Your task to perform on an android device: change alarm snooze length Image 0: 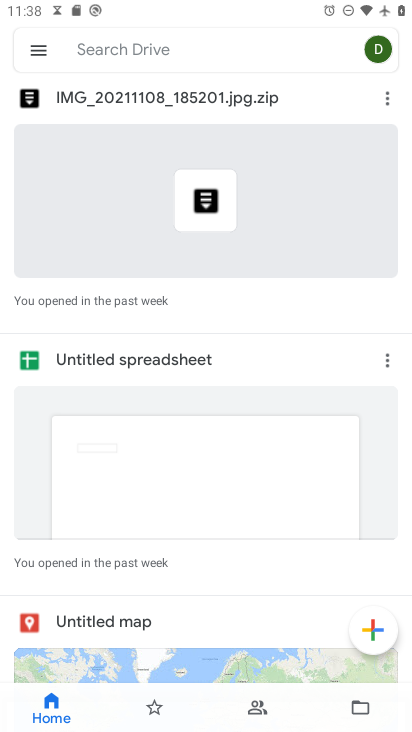
Step 0: press home button
Your task to perform on an android device: change alarm snooze length Image 1: 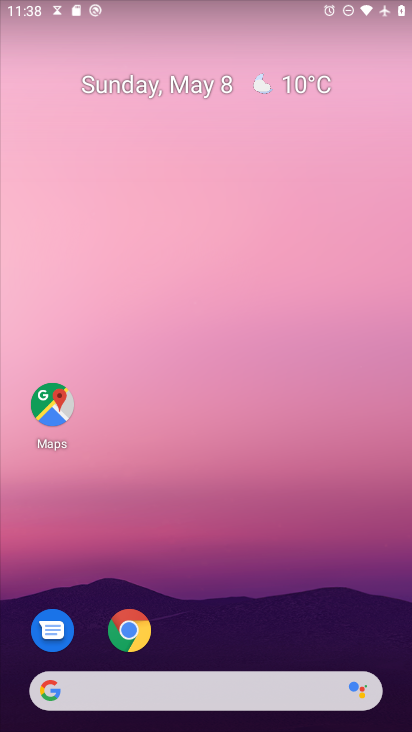
Step 1: drag from (160, 696) to (361, 5)
Your task to perform on an android device: change alarm snooze length Image 2: 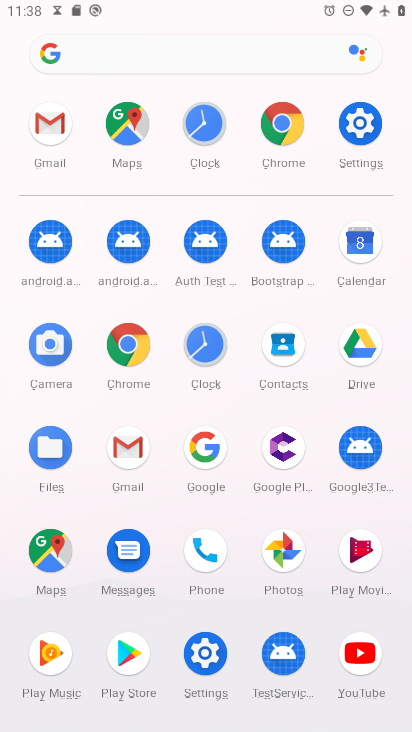
Step 2: click (203, 342)
Your task to perform on an android device: change alarm snooze length Image 3: 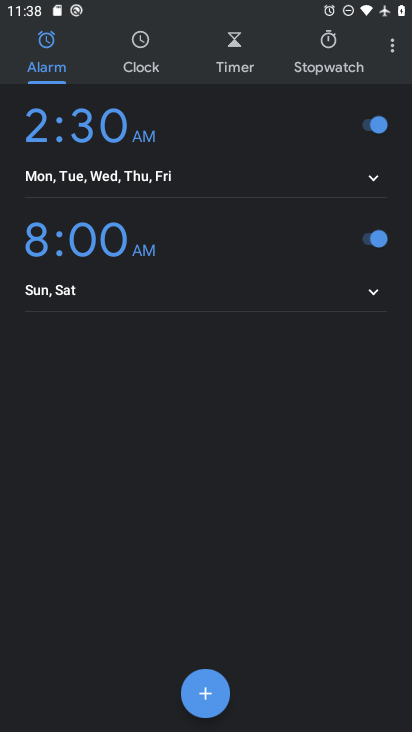
Step 3: click (390, 50)
Your task to perform on an android device: change alarm snooze length Image 4: 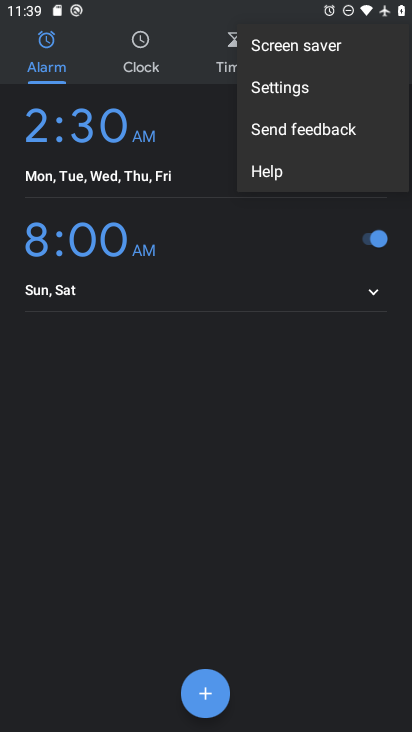
Step 4: click (283, 91)
Your task to perform on an android device: change alarm snooze length Image 5: 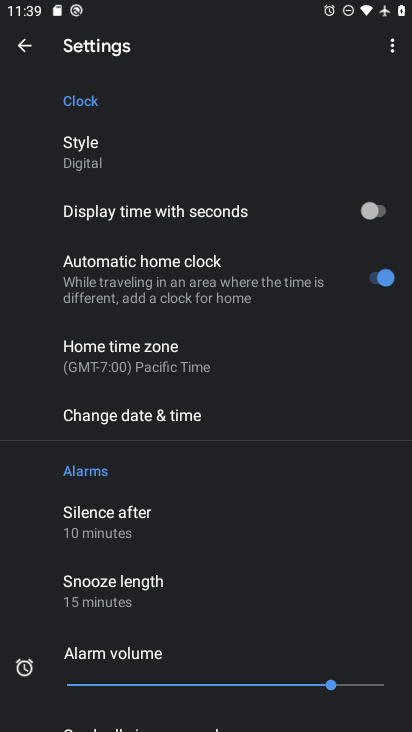
Step 5: click (121, 585)
Your task to perform on an android device: change alarm snooze length Image 6: 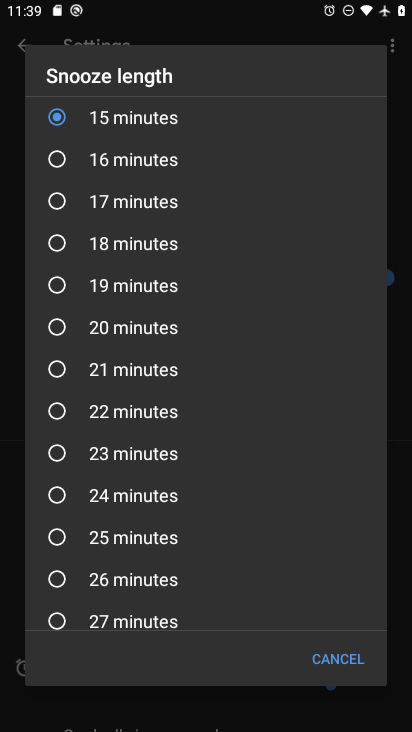
Step 6: click (58, 248)
Your task to perform on an android device: change alarm snooze length Image 7: 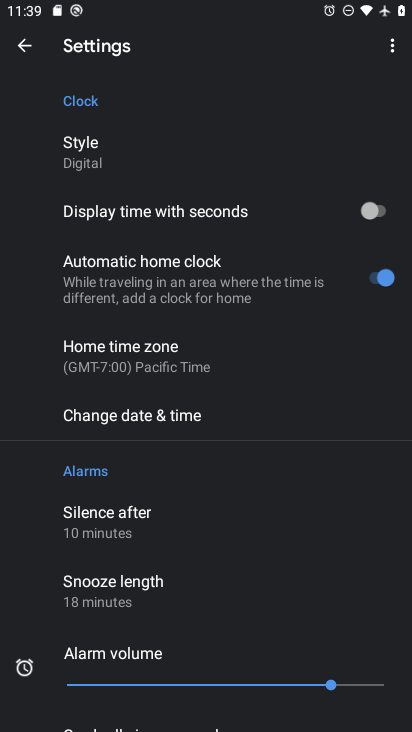
Step 7: task complete